Your task to perform on an android device: add a contact Image 0: 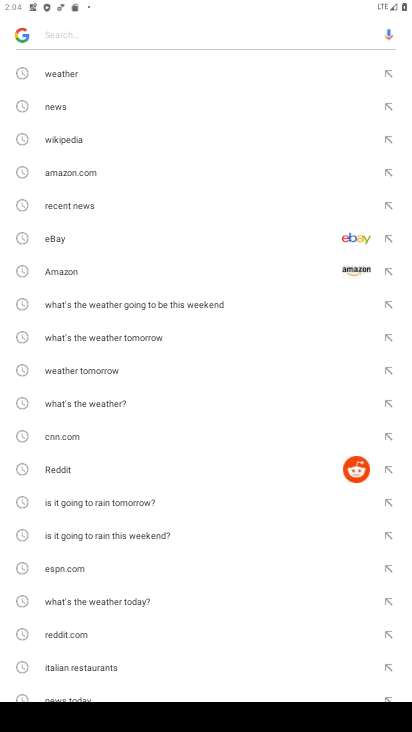
Step 0: press home button
Your task to perform on an android device: add a contact Image 1: 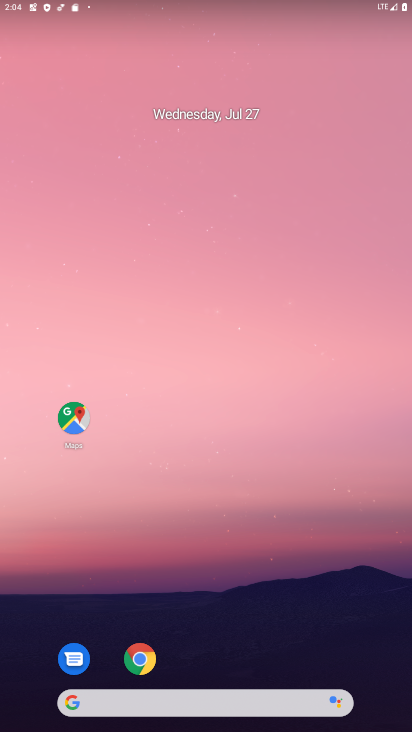
Step 1: drag from (209, 707) to (153, 169)
Your task to perform on an android device: add a contact Image 2: 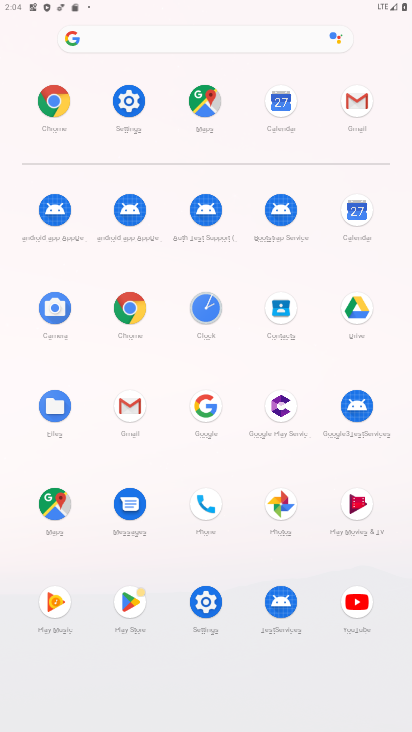
Step 2: click (277, 305)
Your task to perform on an android device: add a contact Image 3: 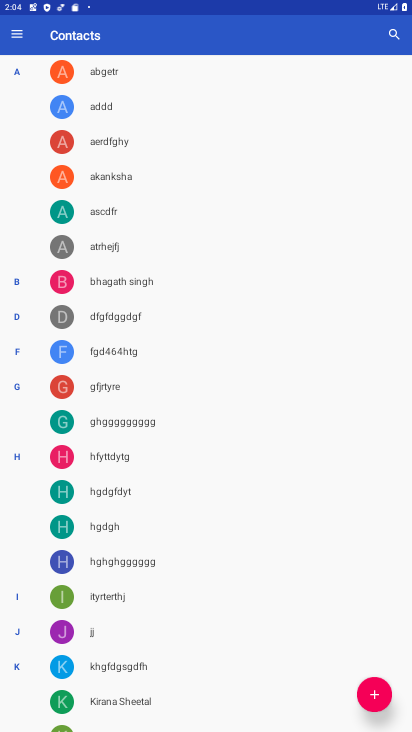
Step 3: click (376, 699)
Your task to perform on an android device: add a contact Image 4: 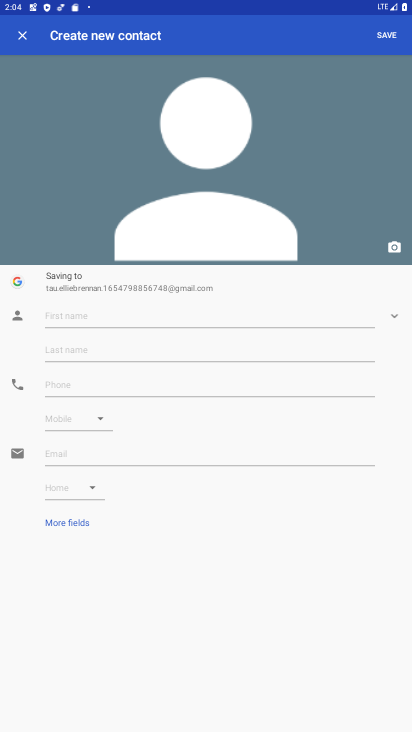
Step 4: click (149, 318)
Your task to perform on an android device: add a contact Image 5: 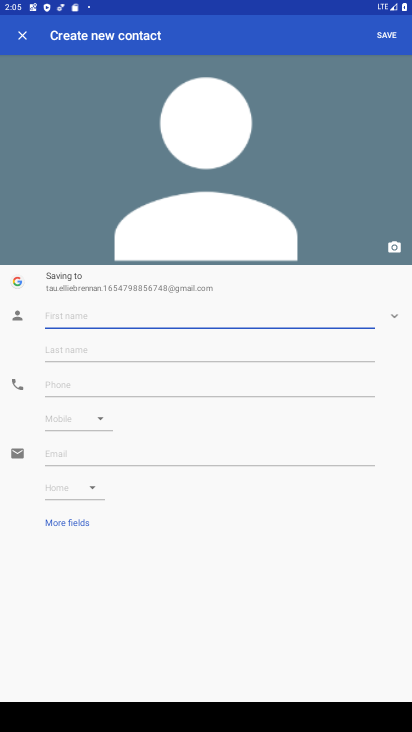
Step 5: type "mahatma gandhi"
Your task to perform on an android device: add a contact Image 6: 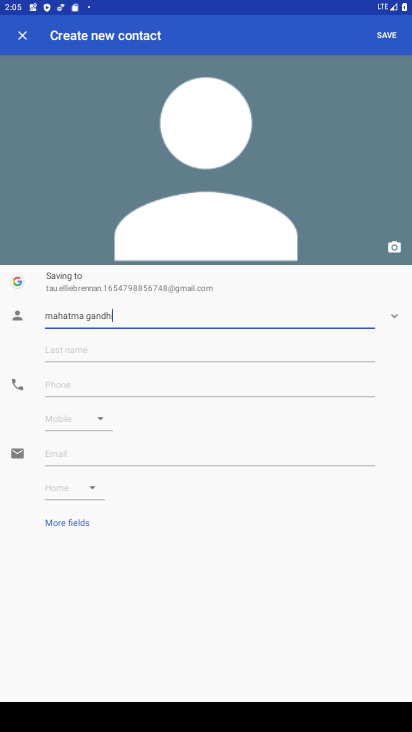
Step 6: type "878787"
Your task to perform on an android device: add a contact Image 7: 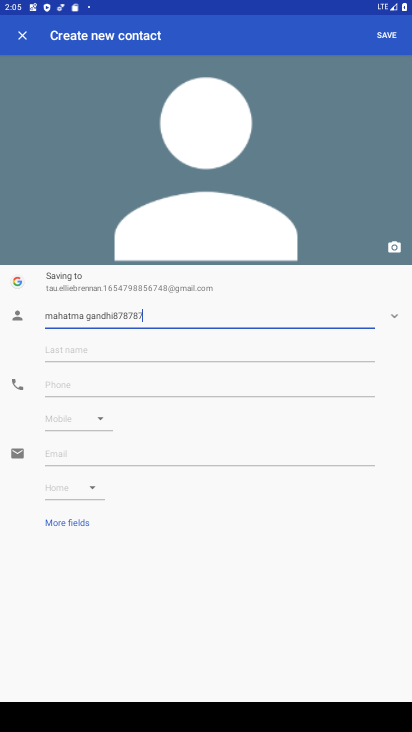
Step 7: click (125, 381)
Your task to perform on an android device: add a contact Image 8: 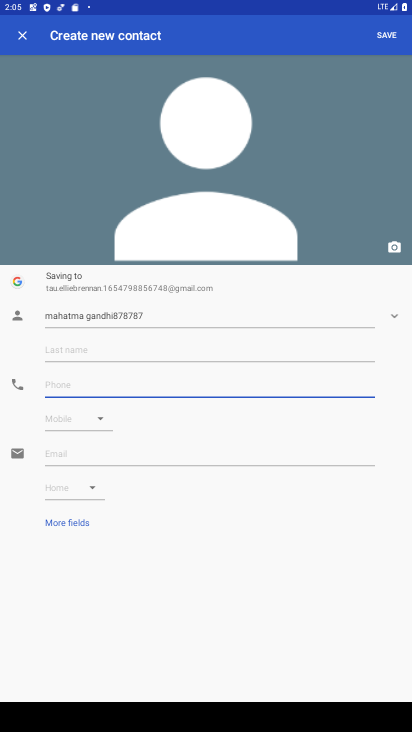
Step 8: type "iiyiy"
Your task to perform on an android device: add a contact Image 9: 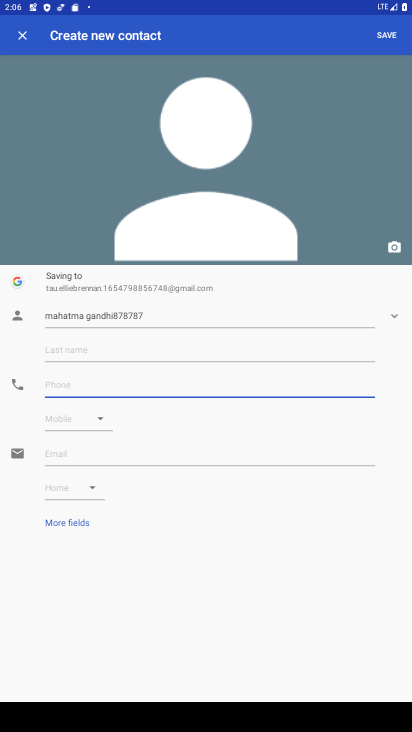
Step 9: type "8787878"
Your task to perform on an android device: add a contact Image 10: 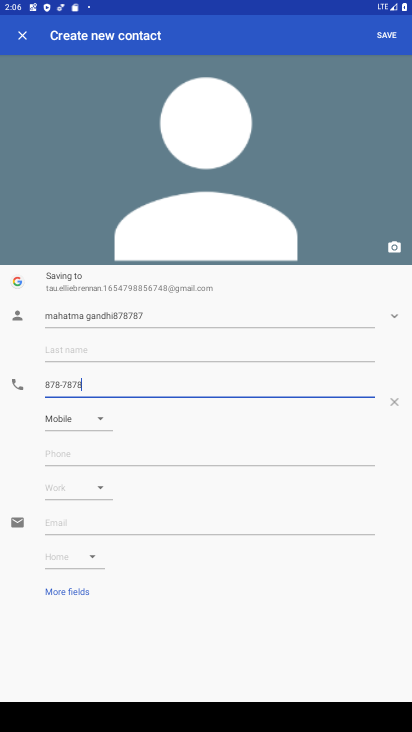
Step 10: click (390, 37)
Your task to perform on an android device: add a contact Image 11: 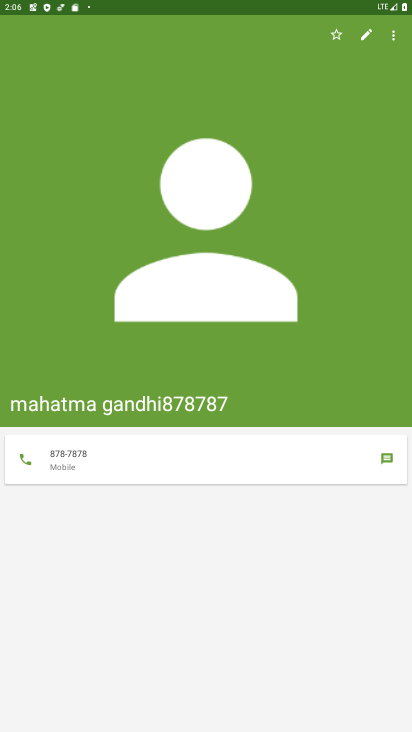
Step 11: task complete